Your task to perform on an android device: Open Google Image 0: 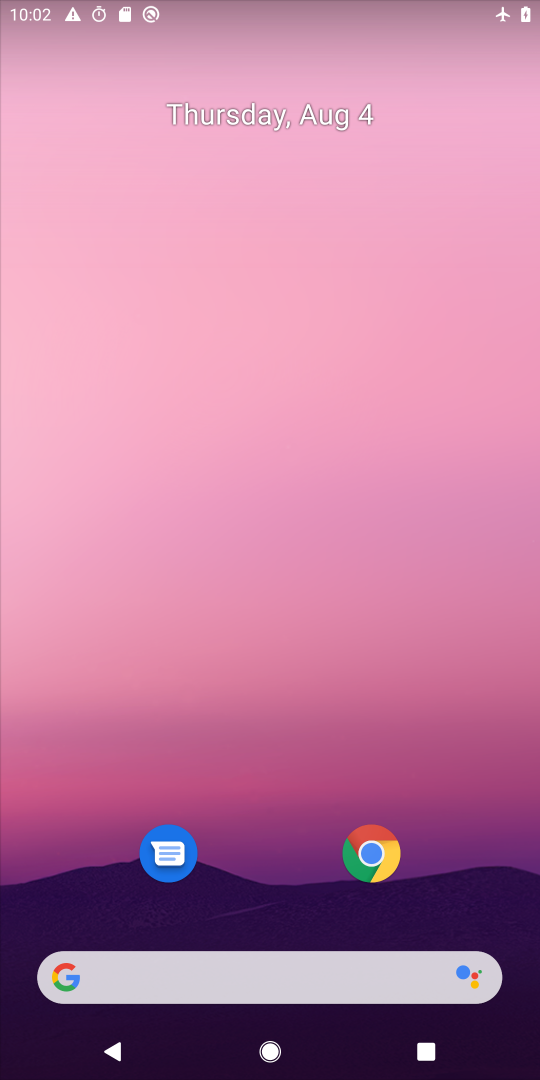
Step 0: drag from (235, 829) to (312, 217)
Your task to perform on an android device: Open Google Image 1: 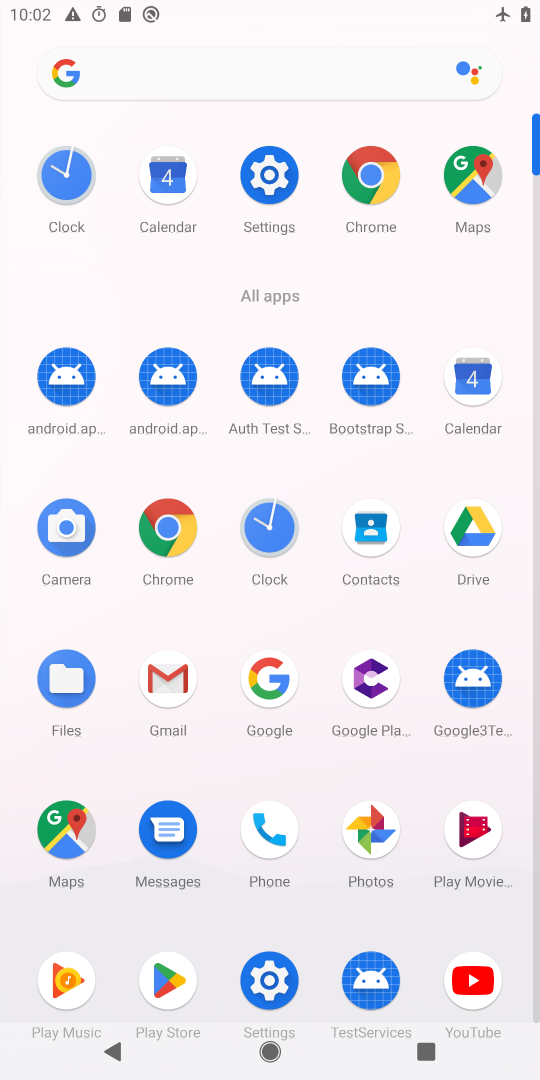
Step 1: click (66, 80)
Your task to perform on an android device: Open Google Image 2: 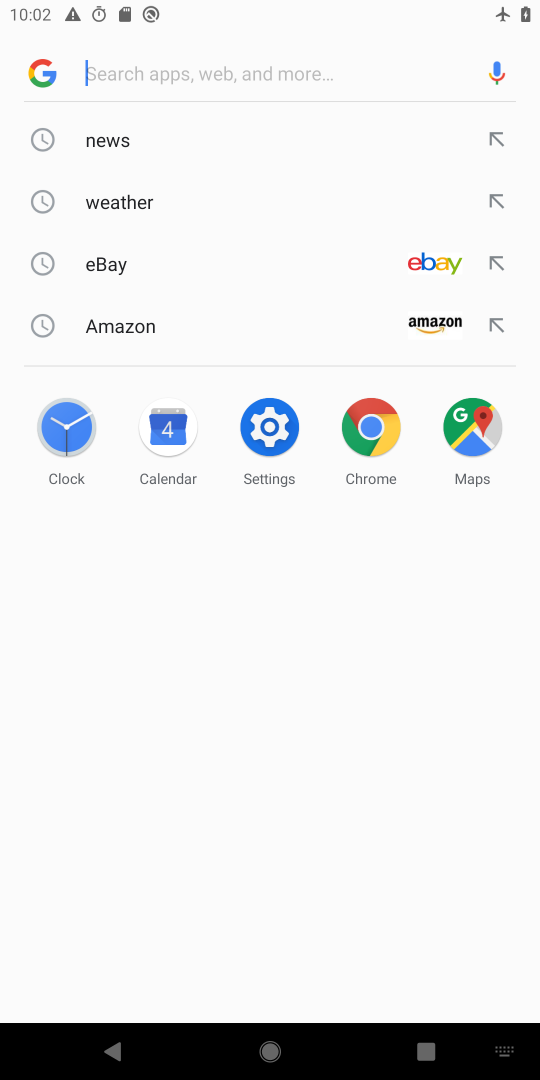
Step 2: click (36, 67)
Your task to perform on an android device: Open Google Image 3: 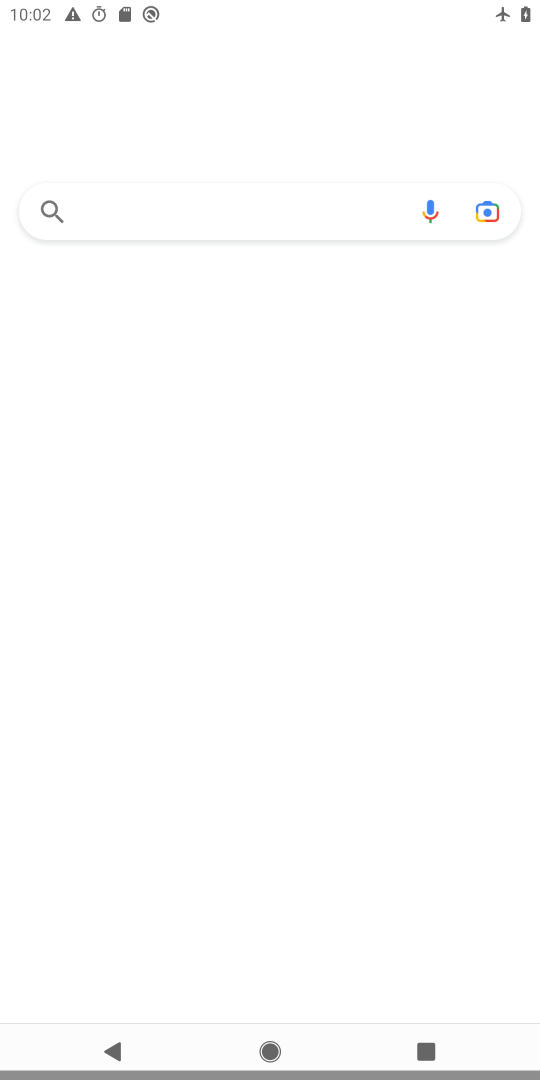
Step 3: click (36, 67)
Your task to perform on an android device: Open Google Image 4: 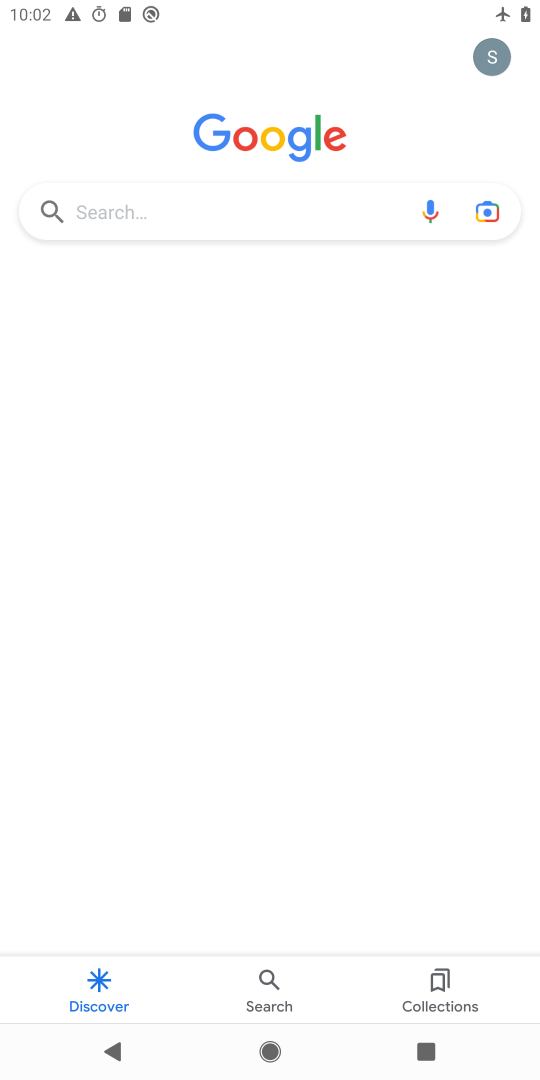
Step 4: task complete